Your task to perform on an android device: manage bookmarks in the chrome app Image 0: 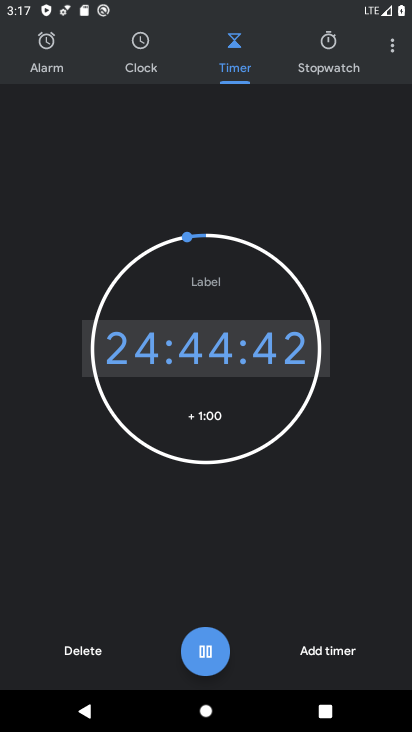
Step 0: press home button
Your task to perform on an android device: manage bookmarks in the chrome app Image 1: 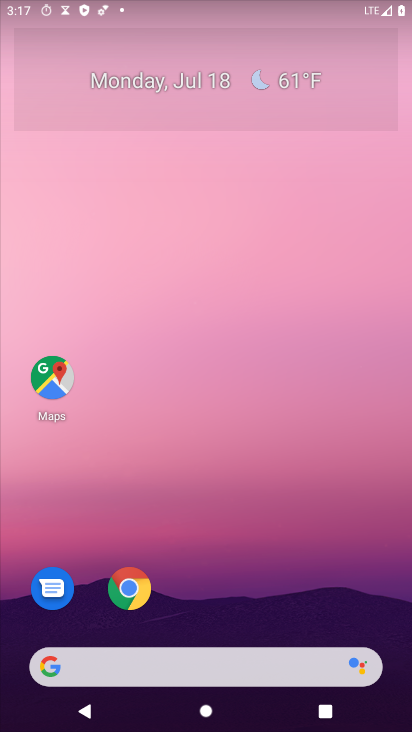
Step 1: drag from (254, 586) to (344, 82)
Your task to perform on an android device: manage bookmarks in the chrome app Image 2: 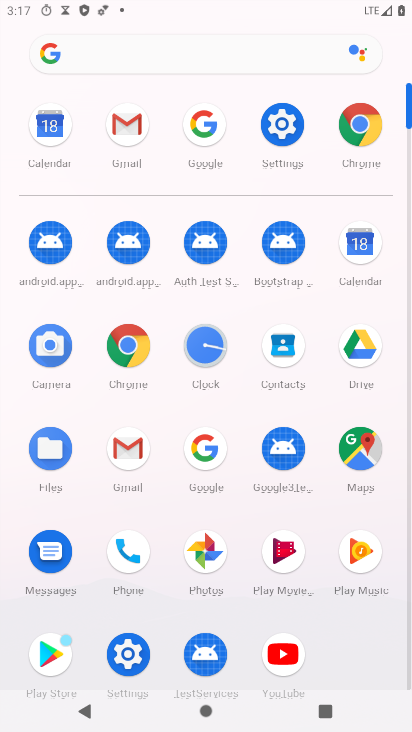
Step 2: click (355, 133)
Your task to perform on an android device: manage bookmarks in the chrome app Image 3: 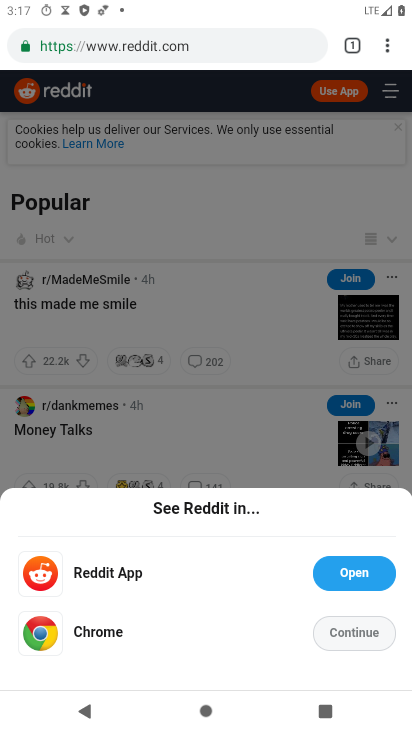
Step 3: drag from (392, 52) to (246, 172)
Your task to perform on an android device: manage bookmarks in the chrome app Image 4: 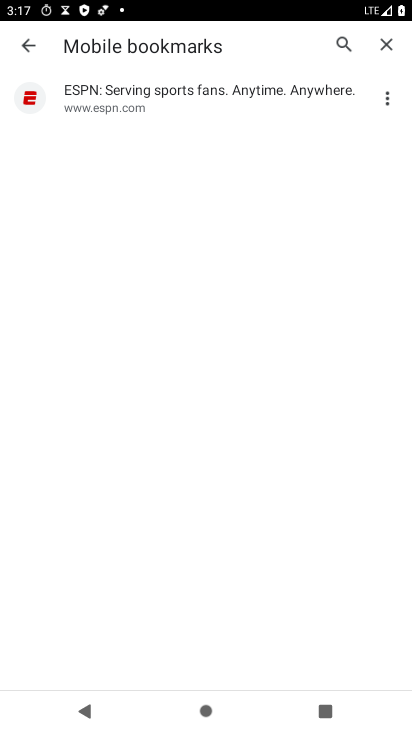
Step 4: click (384, 100)
Your task to perform on an android device: manage bookmarks in the chrome app Image 5: 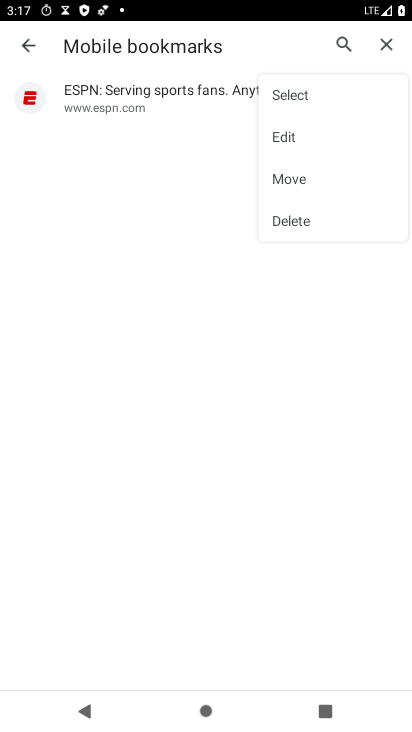
Step 5: click (286, 226)
Your task to perform on an android device: manage bookmarks in the chrome app Image 6: 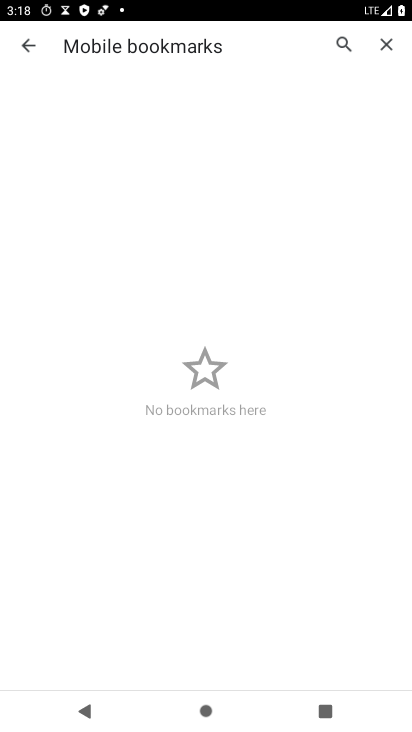
Step 6: task complete